Your task to perform on an android device: Go to Google maps Image 0: 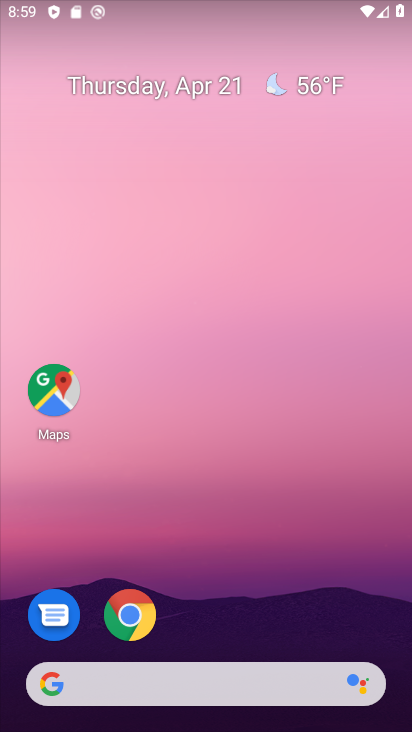
Step 0: click (51, 399)
Your task to perform on an android device: Go to Google maps Image 1: 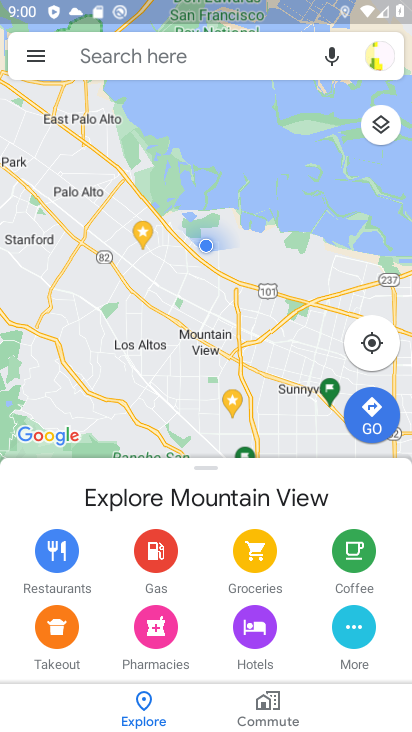
Step 1: task complete